Your task to perform on an android device: Open Yahoo.com Image 0: 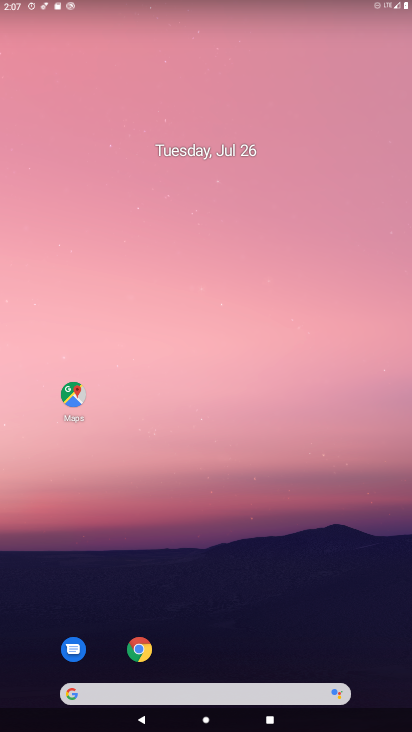
Step 0: drag from (314, 592) to (169, 54)
Your task to perform on an android device: Open Yahoo.com Image 1: 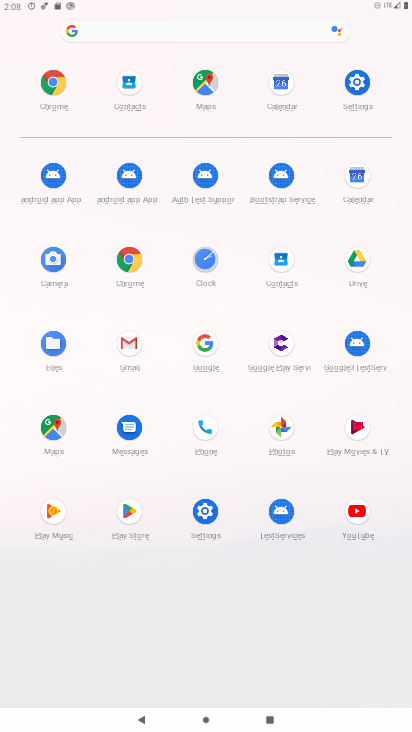
Step 1: click (199, 335)
Your task to perform on an android device: Open Yahoo.com Image 2: 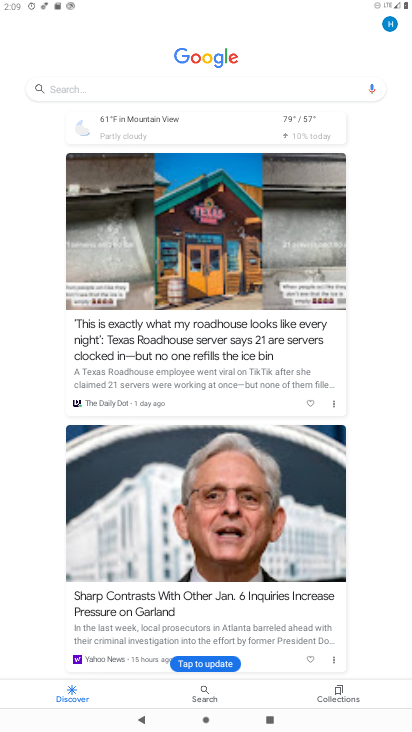
Step 2: click (140, 83)
Your task to perform on an android device: Open Yahoo.com Image 3: 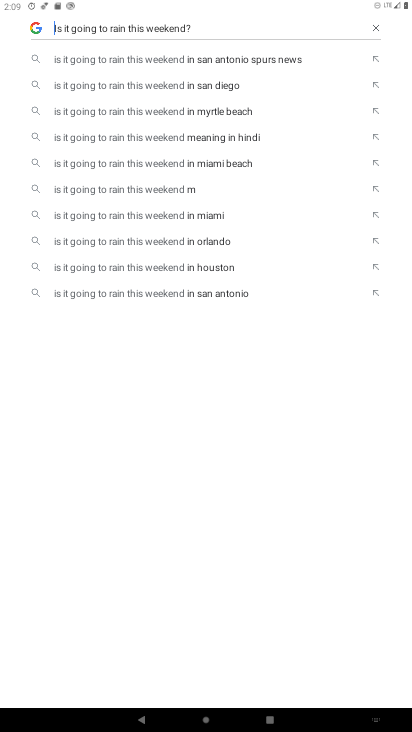
Step 3: click (368, 21)
Your task to perform on an android device: Open Yahoo.com Image 4: 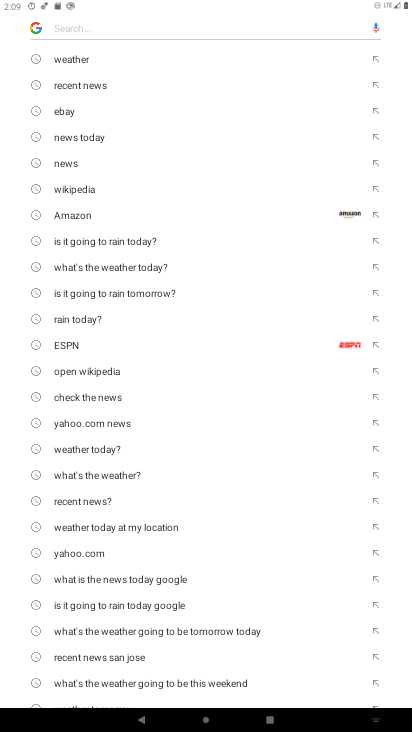
Step 4: click (88, 550)
Your task to perform on an android device: Open Yahoo.com Image 5: 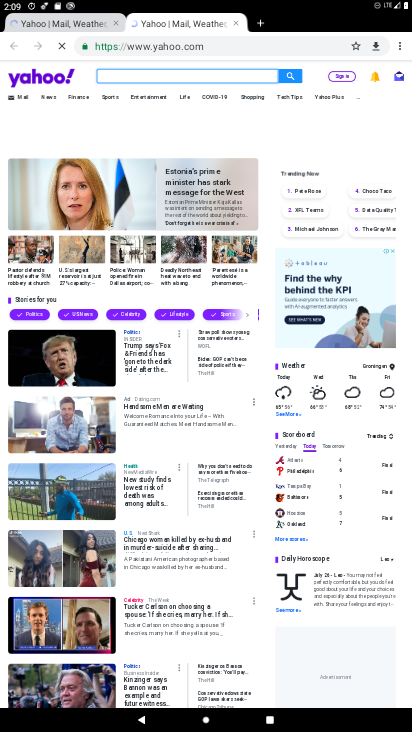
Step 5: task complete